Your task to perform on an android device: Do I have any events this weekend? Image 0: 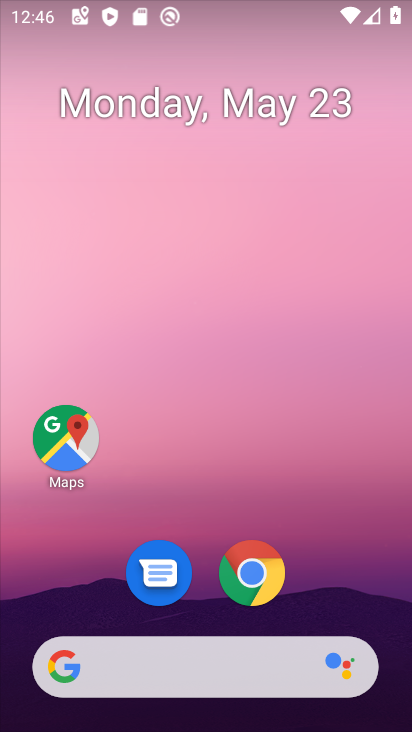
Step 0: drag from (256, 463) to (247, 59)
Your task to perform on an android device: Do I have any events this weekend? Image 1: 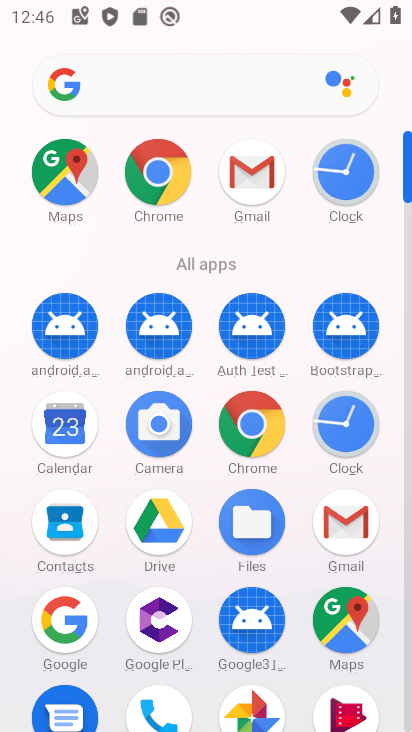
Step 1: click (76, 401)
Your task to perform on an android device: Do I have any events this weekend? Image 2: 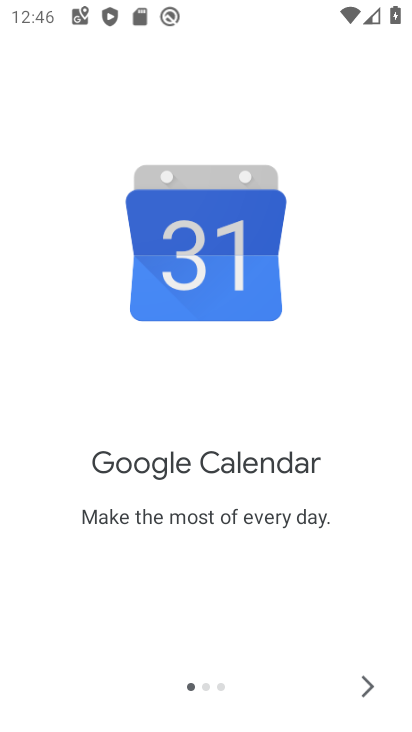
Step 2: click (377, 677)
Your task to perform on an android device: Do I have any events this weekend? Image 3: 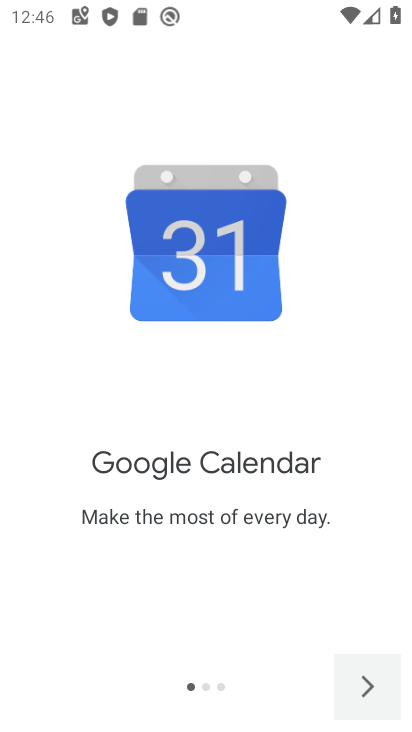
Step 3: click (363, 692)
Your task to perform on an android device: Do I have any events this weekend? Image 4: 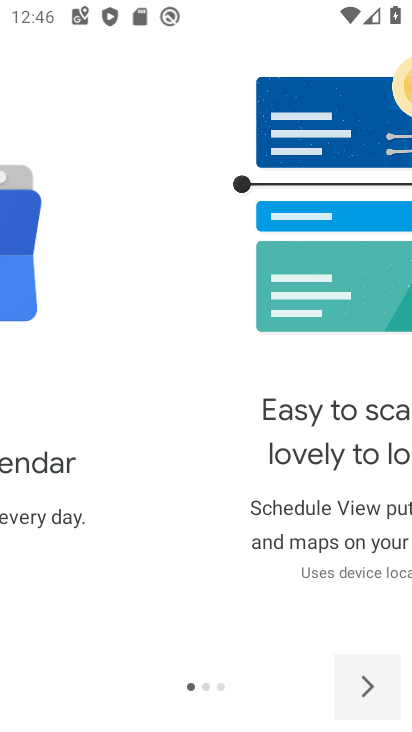
Step 4: click (363, 692)
Your task to perform on an android device: Do I have any events this weekend? Image 5: 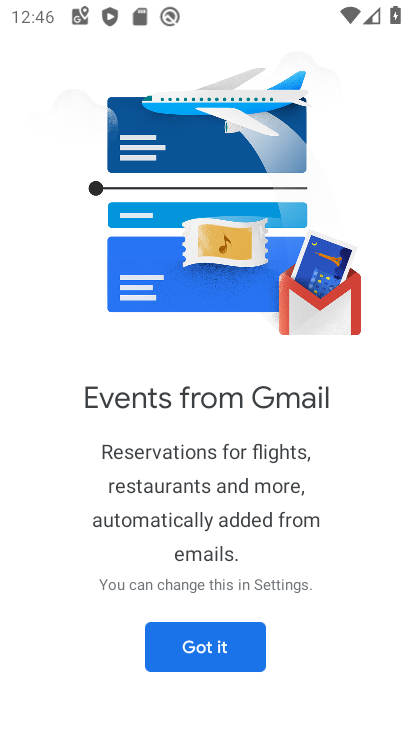
Step 5: click (211, 650)
Your task to perform on an android device: Do I have any events this weekend? Image 6: 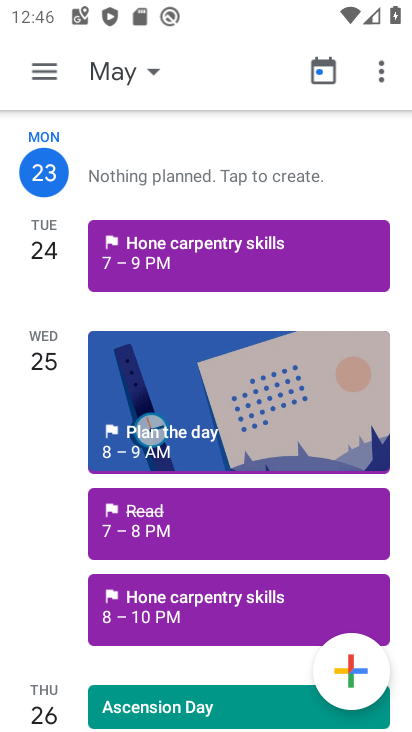
Step 6: click (147, 66)
Your task to perform on an android device: Do I have any events this weekend? Image 7: 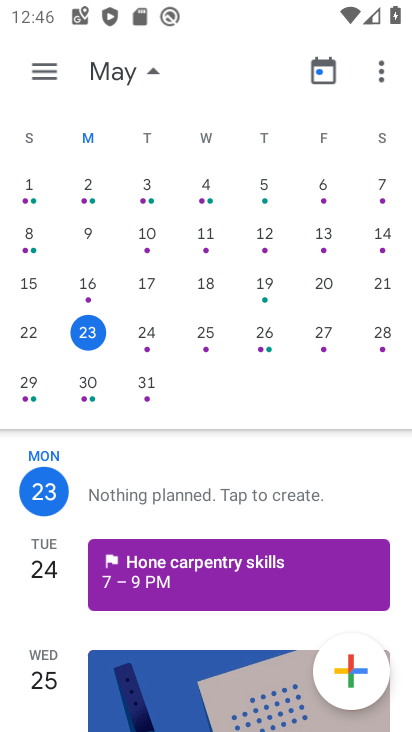
Step 7: click (327, 340)
Your task to perform on an android device: Do I have any events this weekend? Image 8: 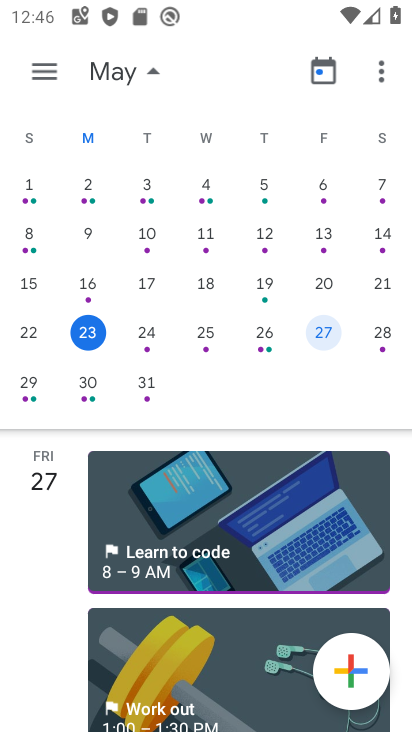
Step 8: click (369, 347)
Your task to perform on an android device: Do I have any events this weekend? Image 9: 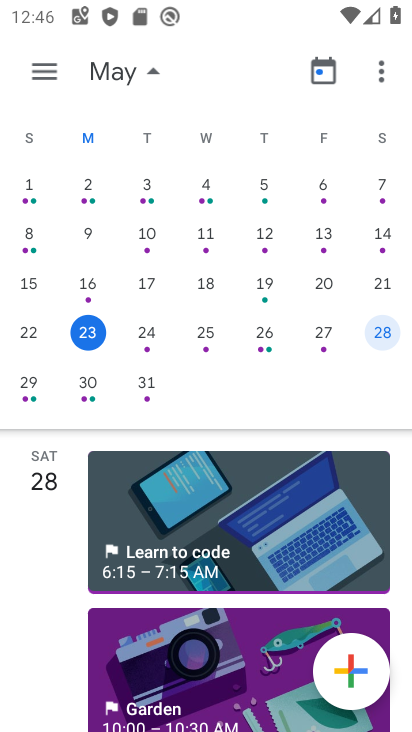
Step 9: task complete